Your task to perform on an android device: Go to accessibility settings Image 0: 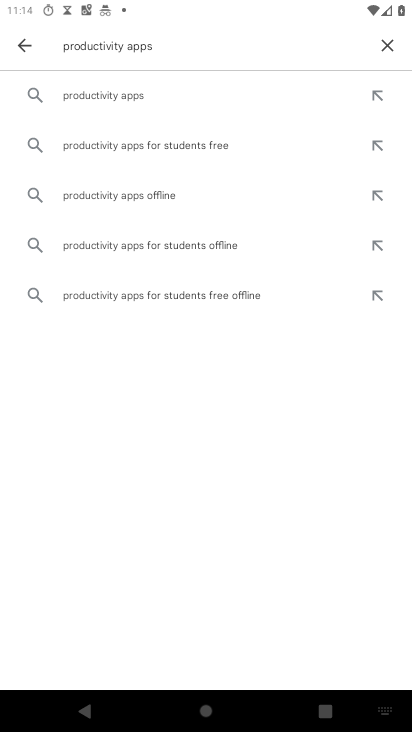
Step 0: press back button
Your task to perform on an android device: Go to accessibility settings Image 1: 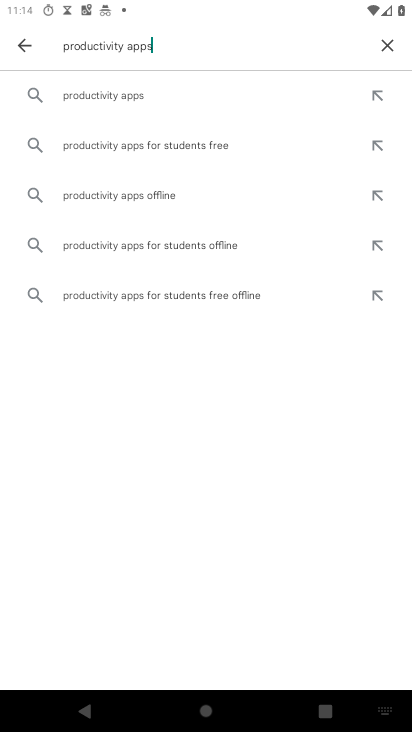
Step 1: press back button
Your task to perform on an android device: Go to accessibility settings Image 2: 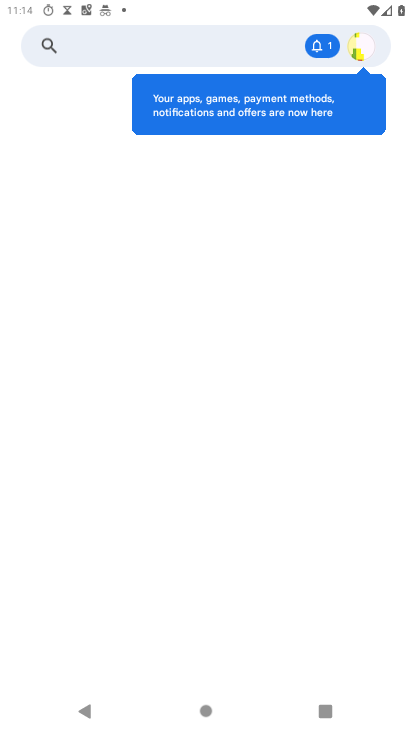
Step 2: press home button
Your task to perform on an android device: Go to accessibility settings Image 3: 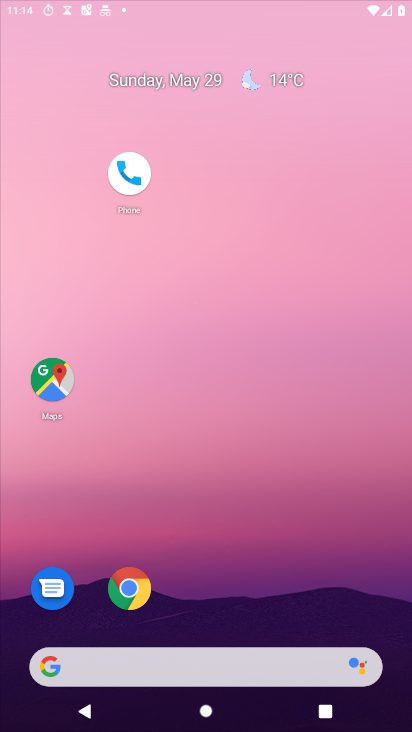
Step 3: press home button
Your task to perform on an android device: Go to accessibility settings Image 4: 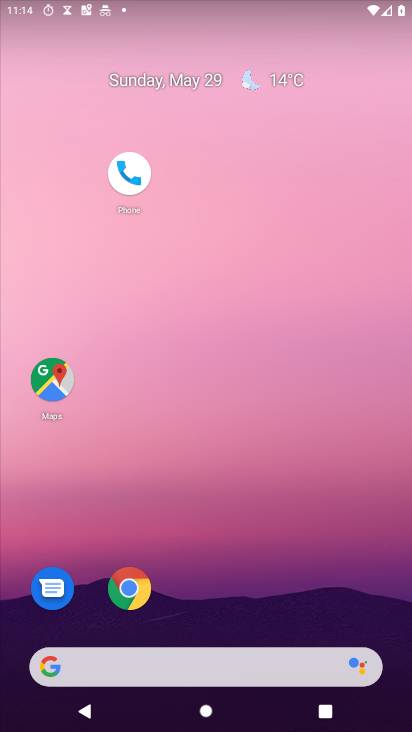
Step 4: drag from (222, 654) to (153, 186)
Your task to perform on an android device: Go to accessibility settings Image 5: 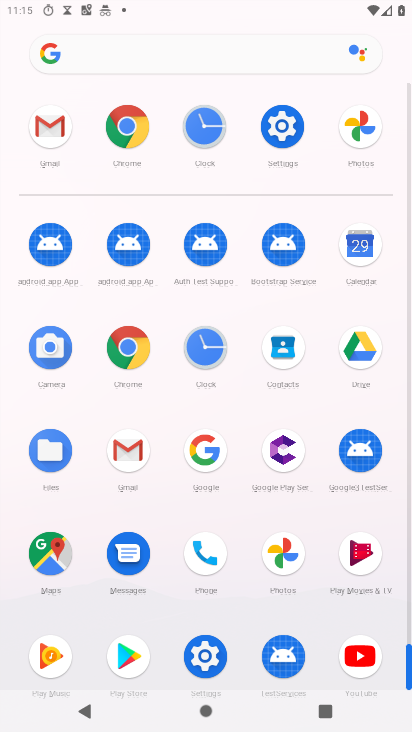
Step 5: click (280, 130)
Your task to perform on an android device: Go to accessibility settings Image 6: 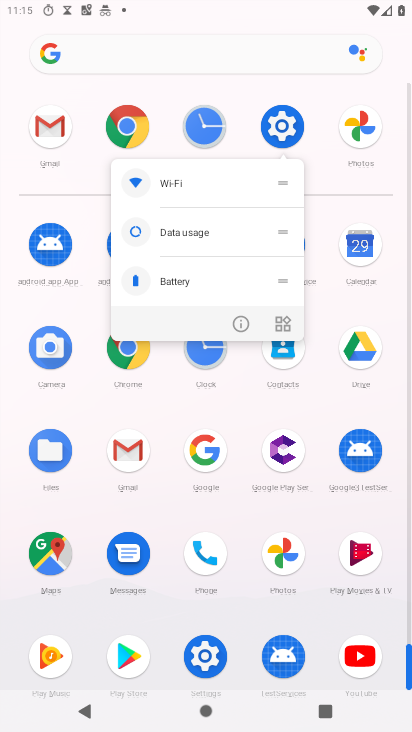
Step 6: click (267, 128)
Your task to perform on an android device: Go to accessibility settings Image 7: 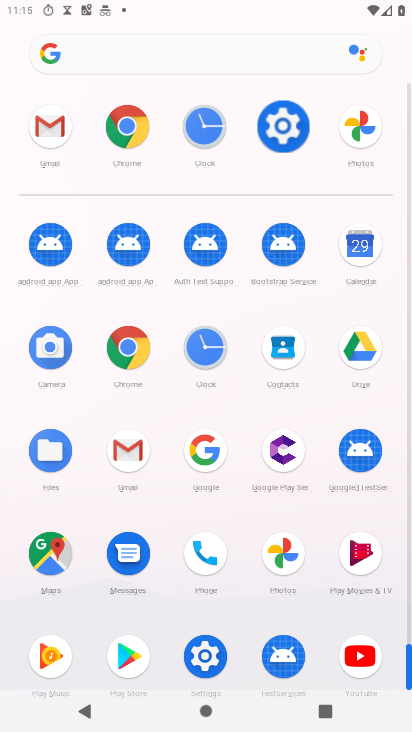
Step 7: click (268, 128)
Your task to perform on an android device: Go to accessibility settings Image 8: 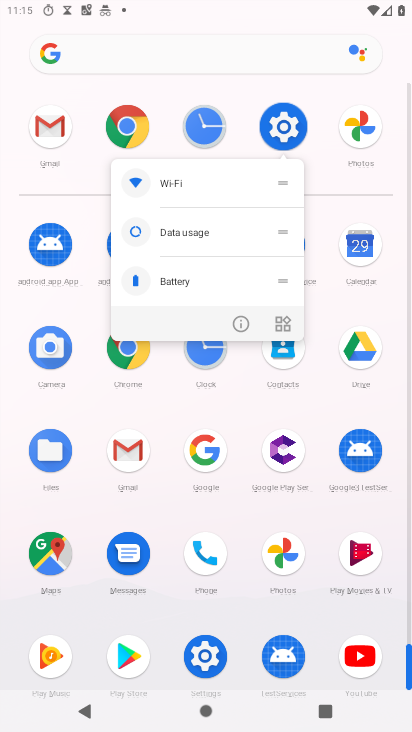
Step 8: click (268, 128)
Your task to perform on an android device: Go to accessibility settings Image 9: 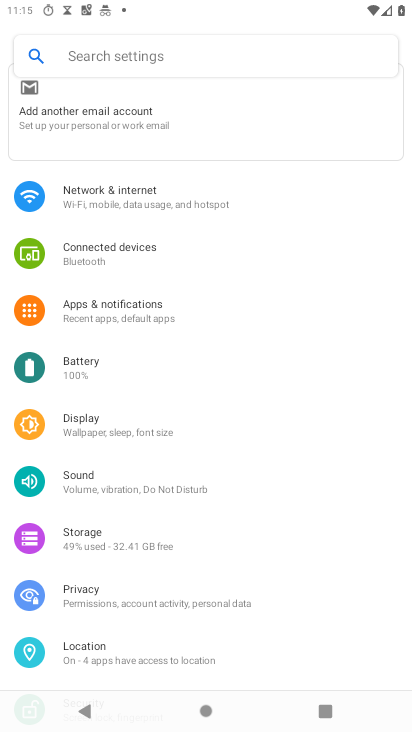
Step 9: click (71, 54)
Your task to perform on an android device: Go to accessibility settings Image 10: 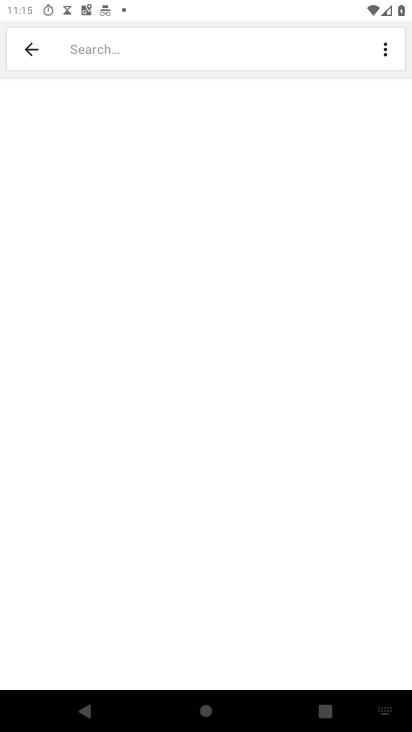
Step 10: click (26, 56)
Your task to perform on an android device: Go to accessibility settings Image 11: 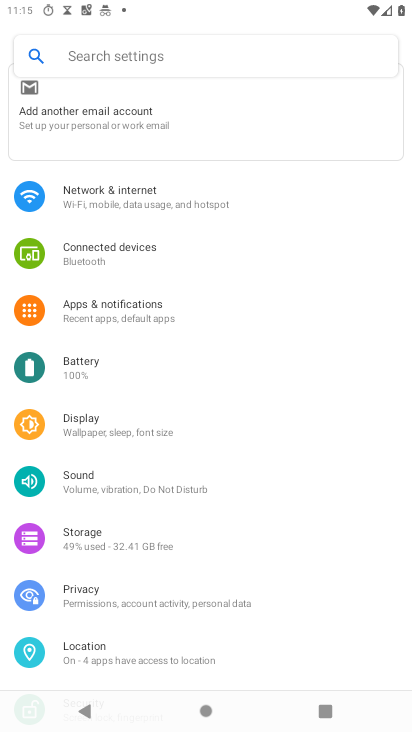
Step 11: drag from (97, 571) to (55, 250)
Your task to perform on an android device: Go to accessibility settings Image 12: 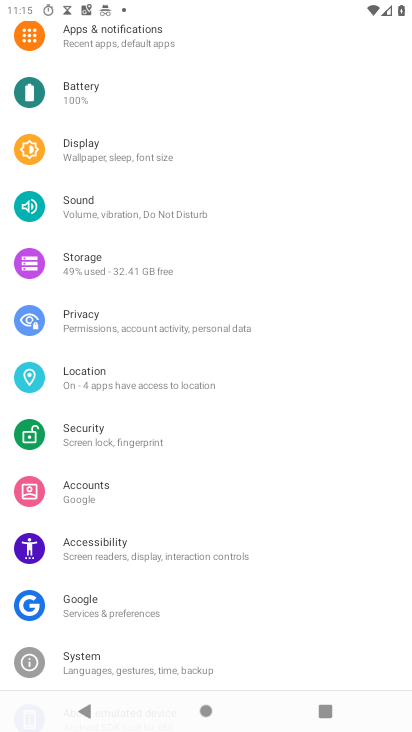
Step 12: drag from (112, 427) to (68, 209)
Your task to perform on an android device: Go to accessibility settings Image 13: 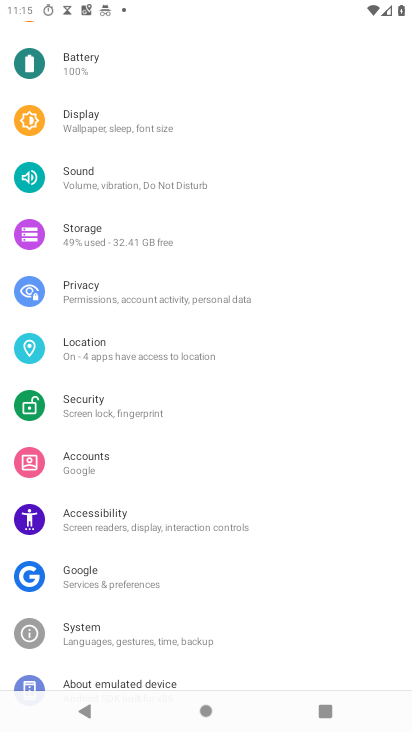
Step 13: click (117, 529)
Your task to perform on an android device: Go to accessibility settings Image 14: 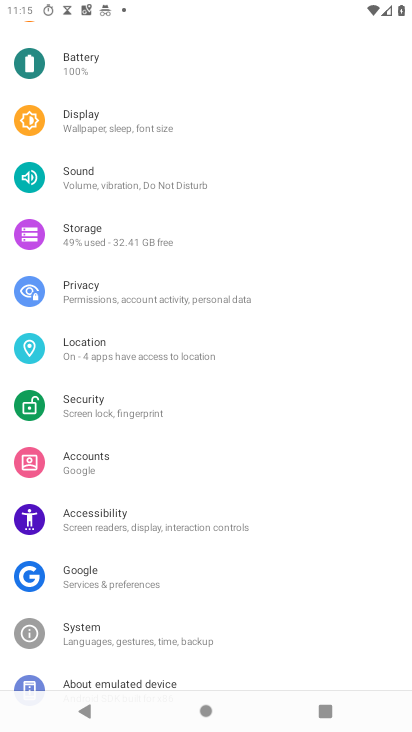
Step 14: click (117, 528)
Your task to perform on an android device: Go to accessibility settings Image 15: 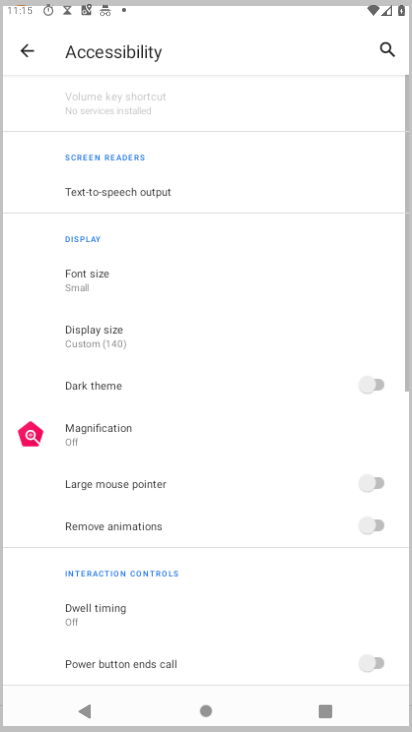
Step 15: click (140, 521)
Your task to perform on an android device: Go to accessibility settings Image 16: 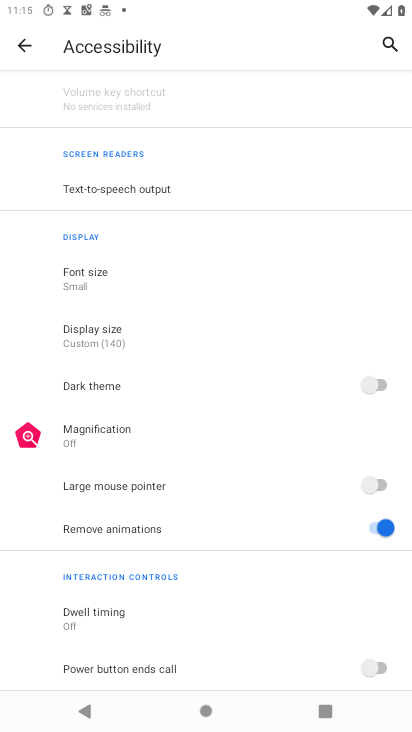
Step 16: task complete